Your task to perform on an android device: Go to sound settings Image 0: 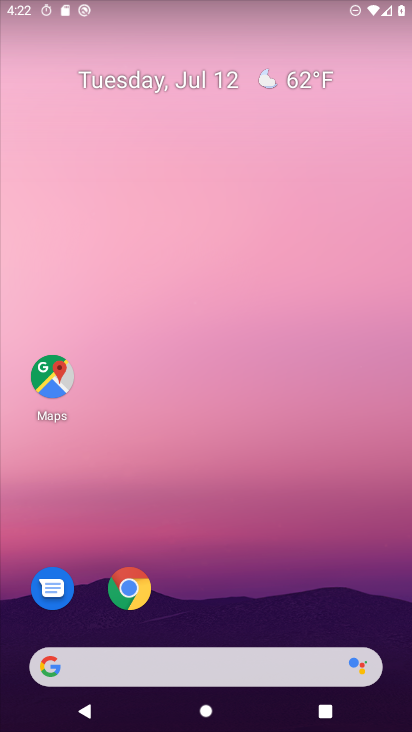
Step 0: drag from (221, 614) to (248, 36)
Your task to perform on an android device: Go to sound settings Image 1: 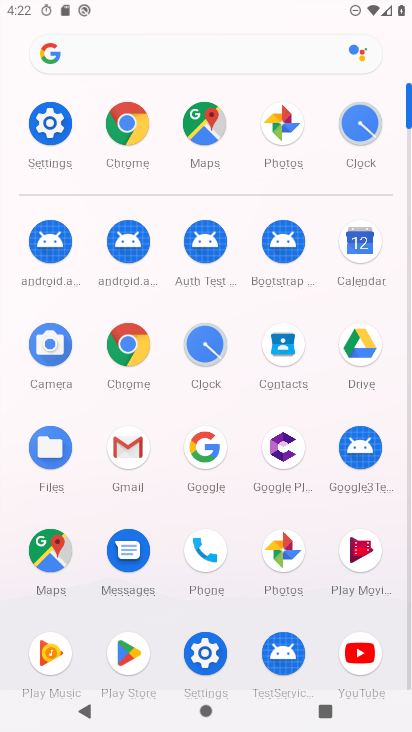
Step 1: click (221, 669)
Your task to perform on an android device: Go to sound settings Image 2: 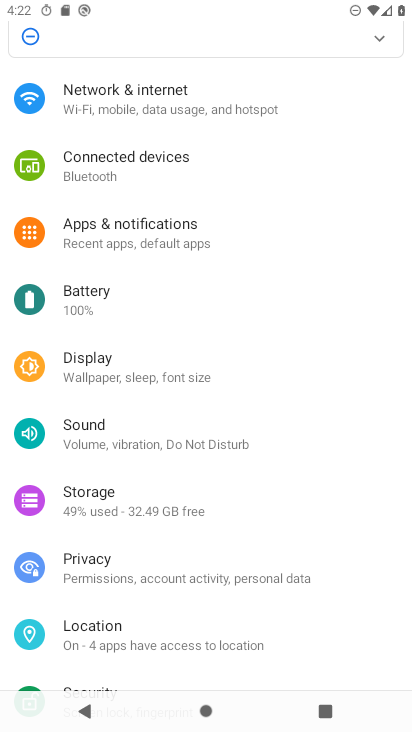
Step 2: click (144, 438)
Your task to perform on an android device: Go to sound settings Image 3: 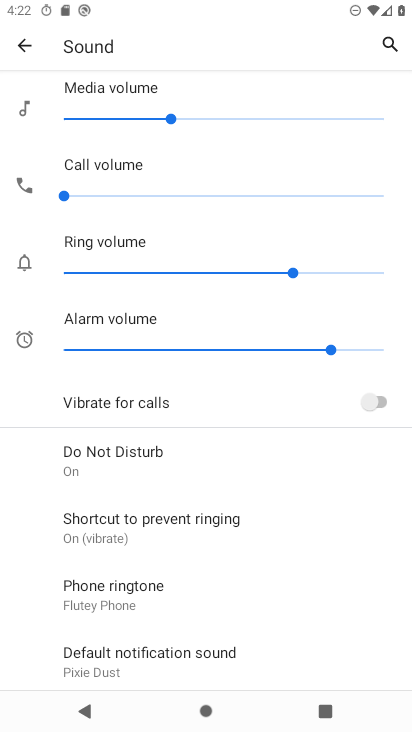
Step 3: task complete